Your task to perform on an android device: Check the news Image 0: 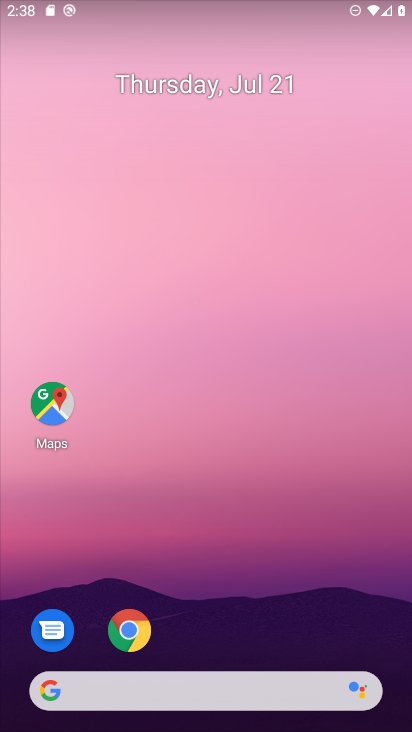
Step 0: click (147, 680)
Your task to perform on an android device: Check the news Image 1: 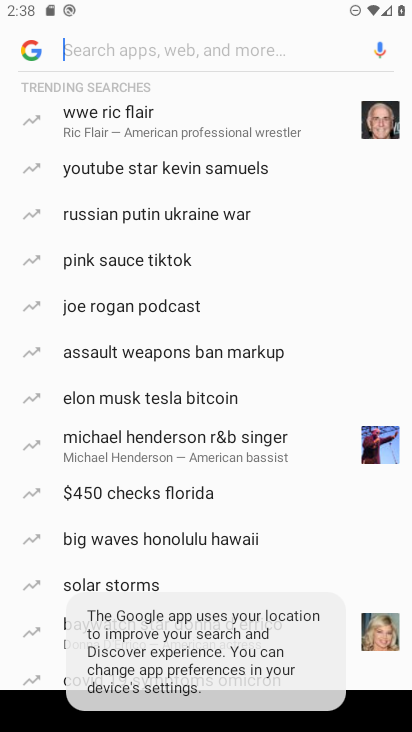
Step 1: click (122, 45)
Your task to perform on an android device: Check the news Image 2: 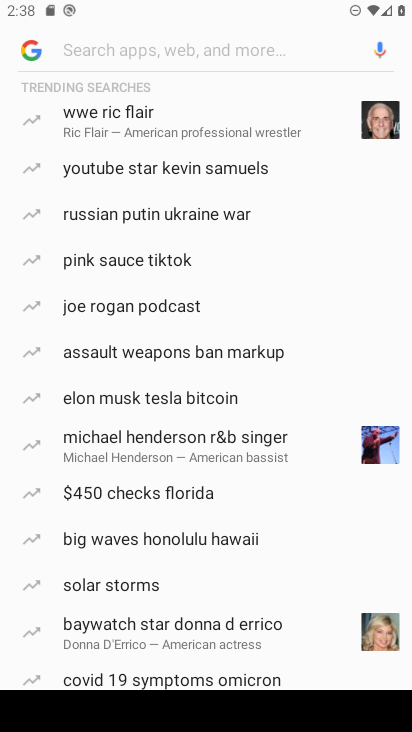
Step 2: type "news"
Your task to perform on an android device: Check the news Image 3: 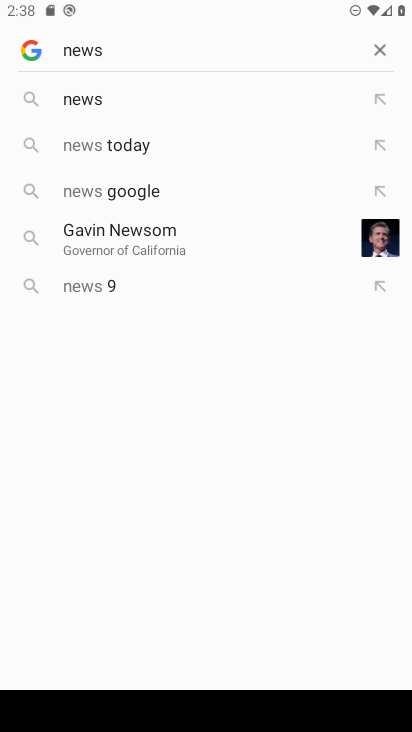
Step 3: click (97, 99)
Your task to perform on an android device: Check the news Image 4: 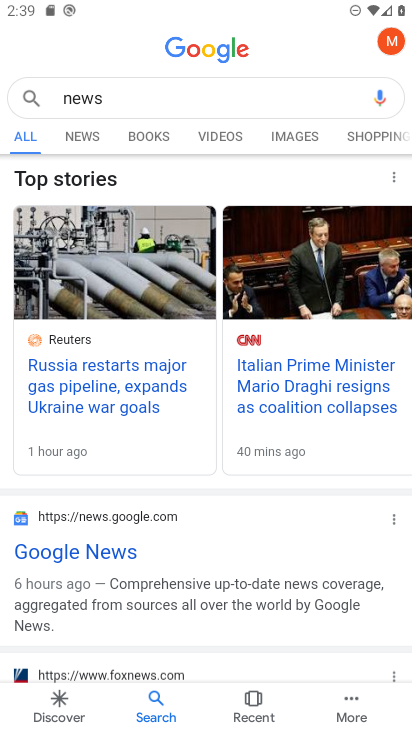
Step 4: task complete